Your task to perform on an android device: read, delete, or share a saved page in the chrome app Image 0: 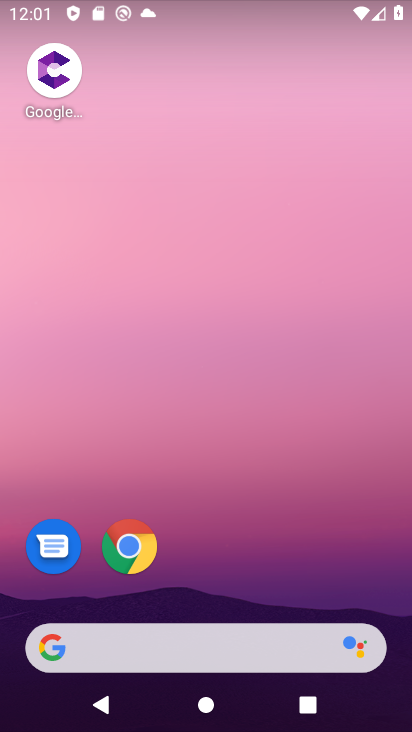
Step 0: drag from (309, 567) to (356, 243)
Your task to perform on an android device: read, delete, or share a saved page in the chrome app Image 1: 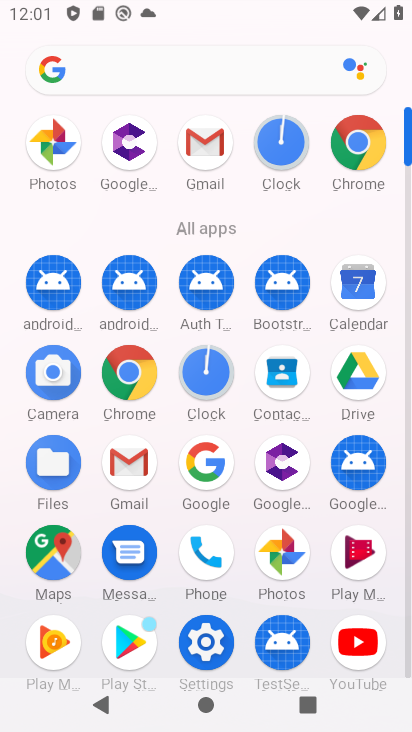
Step 1: click (115, 369)
Your task to perform on an android device: read, delete, or share a saved page in the chrome app Image 2: 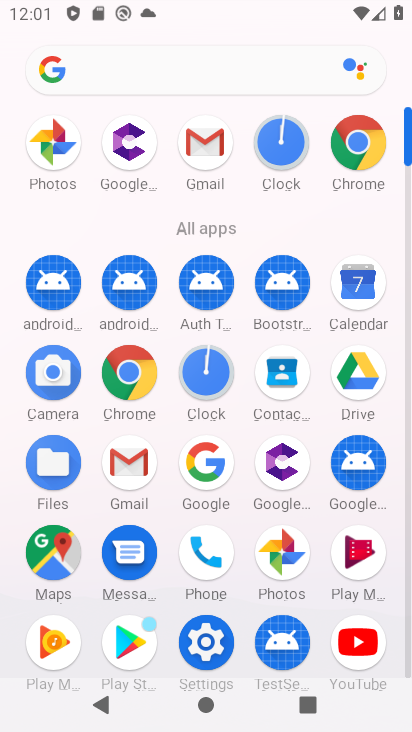
Step 2: click (115, 369)
Your task to perform on an android device: read, delete, or share a saved page in the chrome app Image 3: 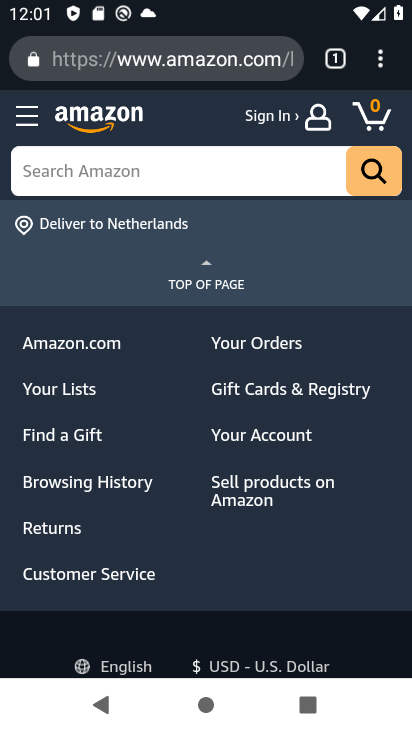
Step 3: click (173, 439)
Your task to perform on an android device: read, delete, or share a saved page in the chrome app Image 4: 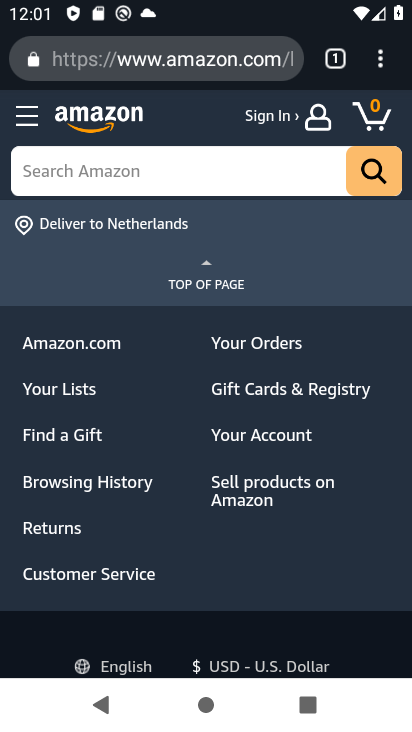
Step 4: drag from (271, 568) to (350, 192)
Your task to perform on an android device: read, delete, or share a saved page in the chrome app Image 5: 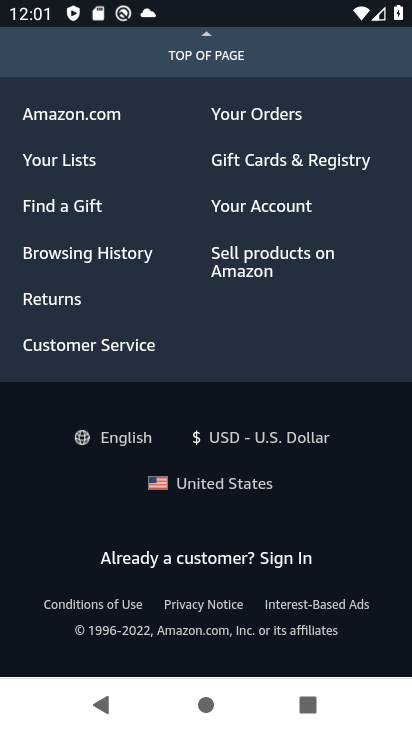
Step 5: drag from (362, 102) to (411, 682)
Your task to perform on an android device: read, delete, or share a saved page in the chrome app Image 6: 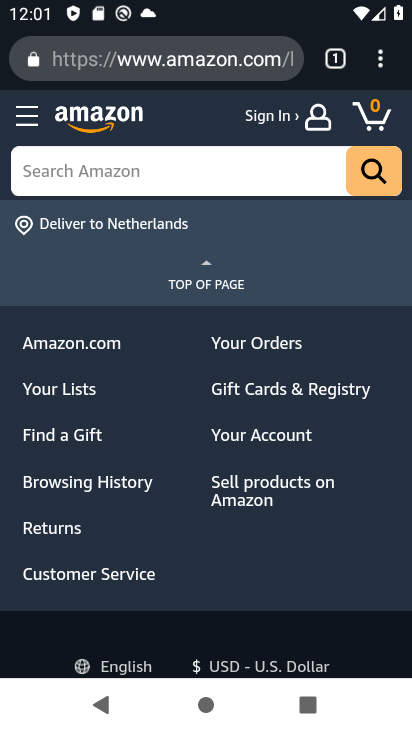
Step 6: drag from (391, 54) to (225, 462)
Your task to perform on an android device: read, delete, or share a saved page in the chrome app Image 7: 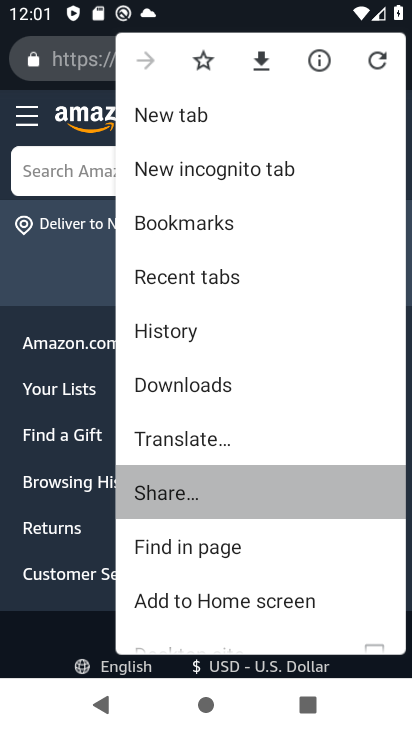
Step 7: click (225, 458)
Your task to perform on an android device: read, delete, or share a saved page in the chrome app Image 8: 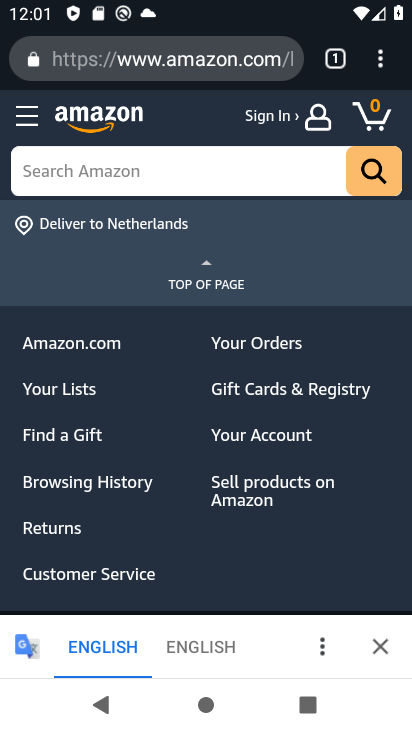
Step 8: click (224, 442)
Your task to perform on an android device: read, delete, or share a saved page in the chrome app Image 9: 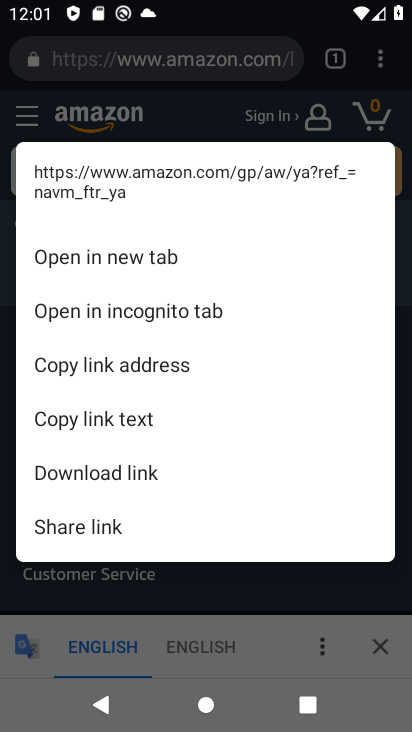
Step 9: drag from (283, 494) to (411, 428)
Your task to perform on an android device: read, delete, or share a saved page in the chrome app Image 10: 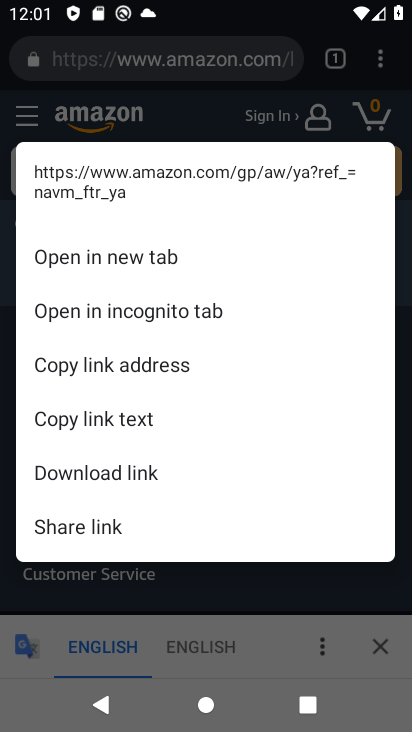
Step 10: click (255, 598)
Your task to perform on an android device: read, delete, or share a saved page in the chrome app Image 11: 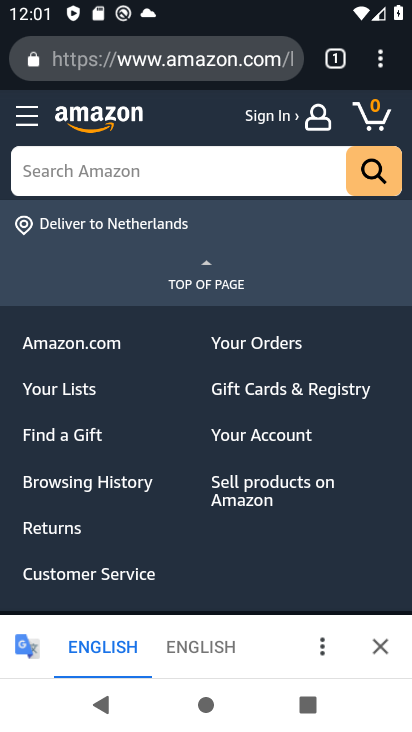
Step 11: task complete